Your task to perform on an android device: Open the web browser Image 0: 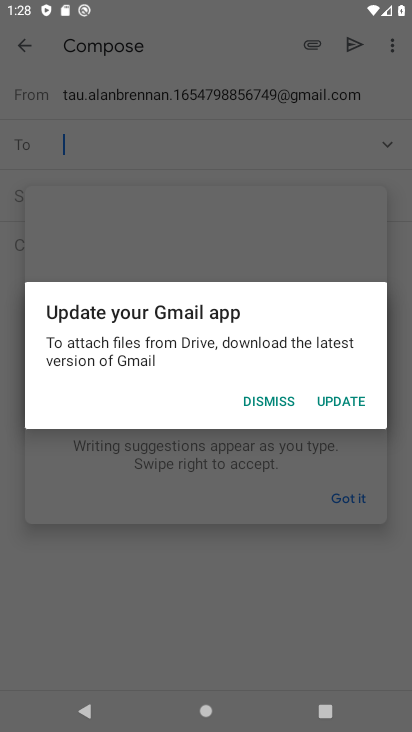
Step 0: press home button
Your task to perform on an android device: Open the web browser Image 1: 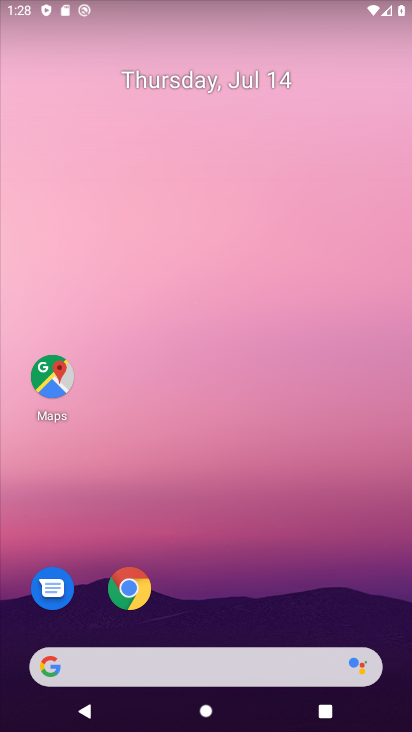
Step 1: click (120, 604)
Your task to perform on an android device: Open the web browser Image 2: 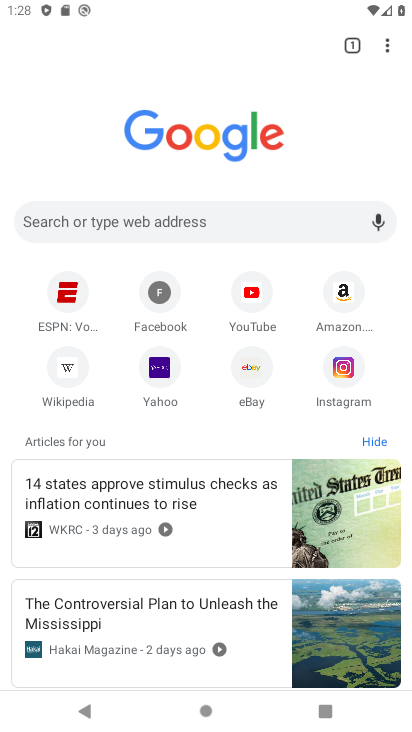
Step 2: task complete